Your task to perform on an android device: find which apps use the phone's location Image 0: 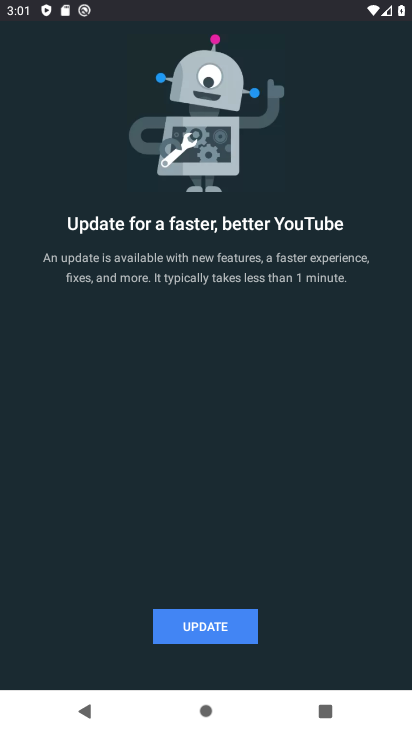
Step 0: press home button
Your task to perform on an android device: find which apps use the phone's location Image 1: 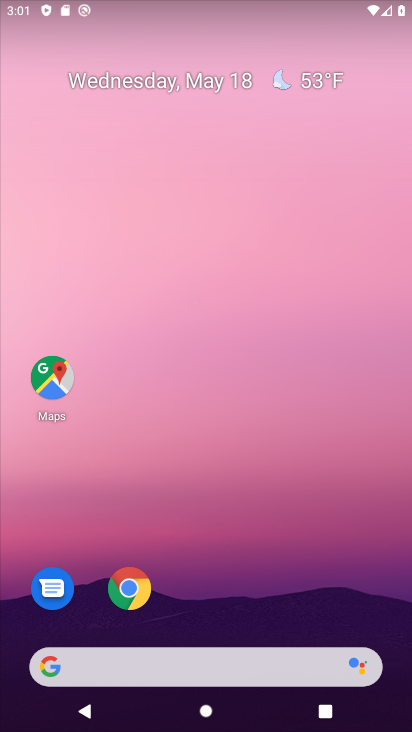
Step 1: drag from (294, 546) to (310, 45)
Your task to perform on an android device: find which apps use the phone's location Image 2: 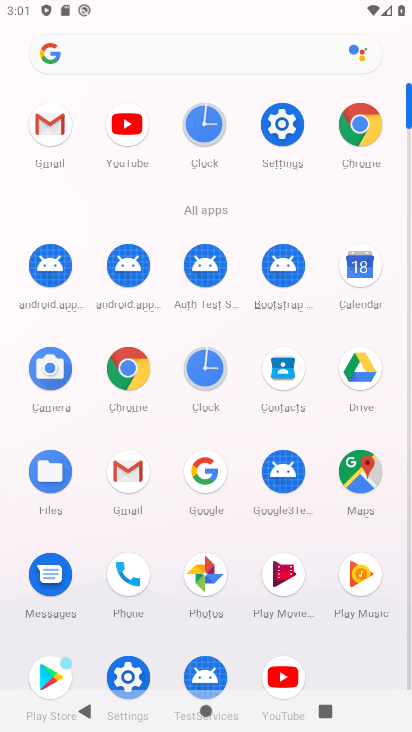
Step 2: click (144, 582)
Your task to perform on an android device: find which apps use the phone's location Image 3: 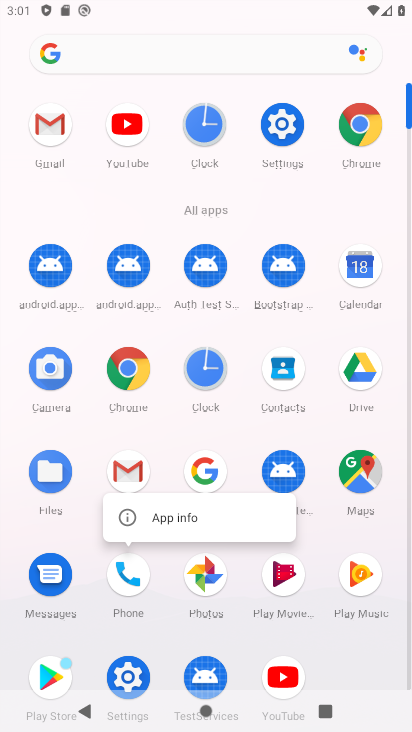
Step 3: click (154, 533)
Your task to perform on an android device: find which apps use the phone's location Image 4: 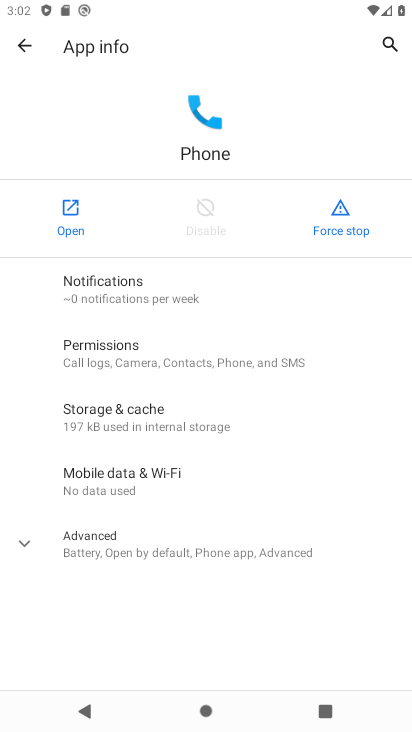
Step 4: click (191, 548)
Your task to perform on an android device: find which apps use the phone's location Image 5: 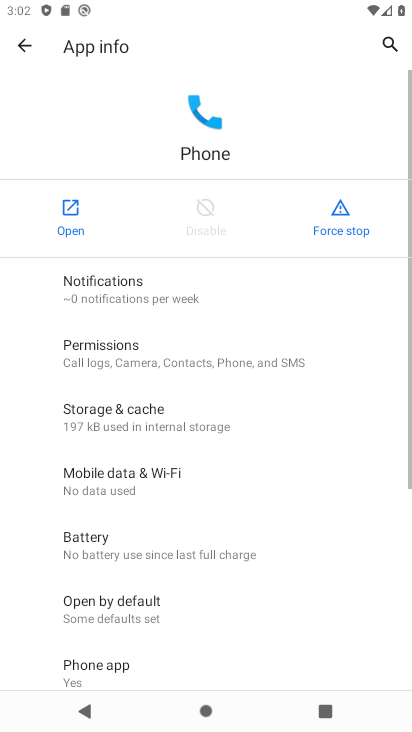
Step 5: drag from (204, 608) to (224, 279)
Your task to perform on an android device: find which apps use the phone's location Image 6: 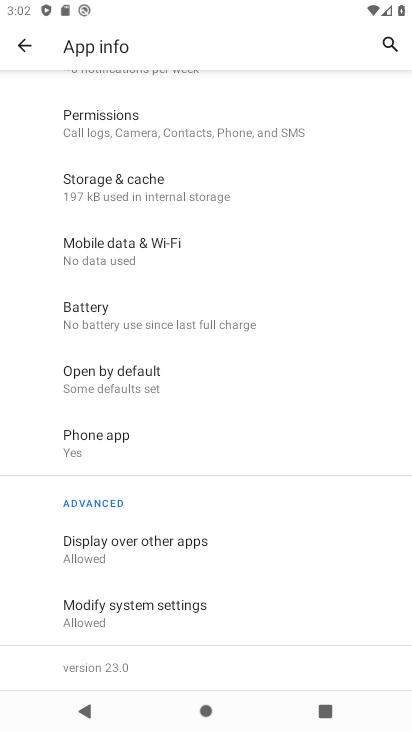
Step 6: drag from (173, 135) to (205, 379)
Your task to perform on an android device: find which apps use the phone's location Image 7: 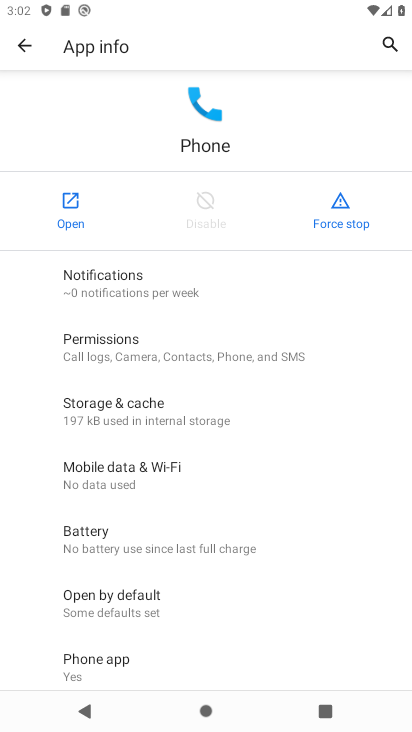
Step 7: click (131, 365)
Your task to perform on an android device: find which apps use the phone's location Image 8: 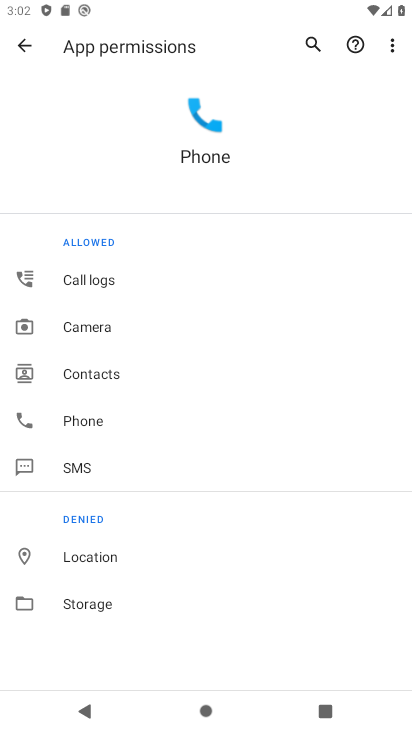
Step 8: click (72, 571)
Your task to perform on an android device: find which apps use the phone's location Image 9: 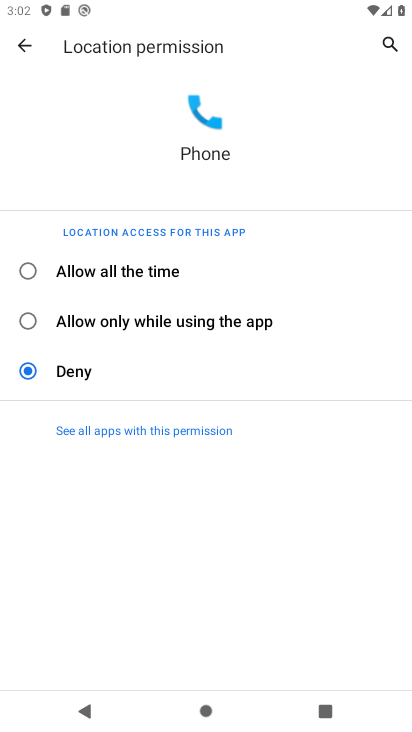
Step 9: click (90, 447)
Your task to perform on an android device: find which apps use the phone's location Image 10: 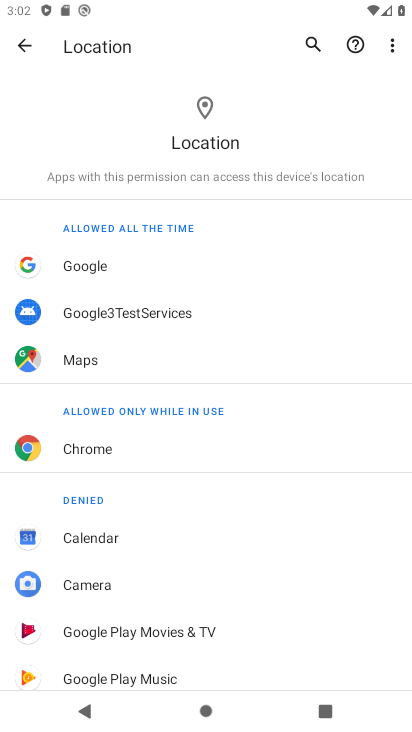
Step 10: task complete